Your task to perform on an android device: change the clock style Image 0: 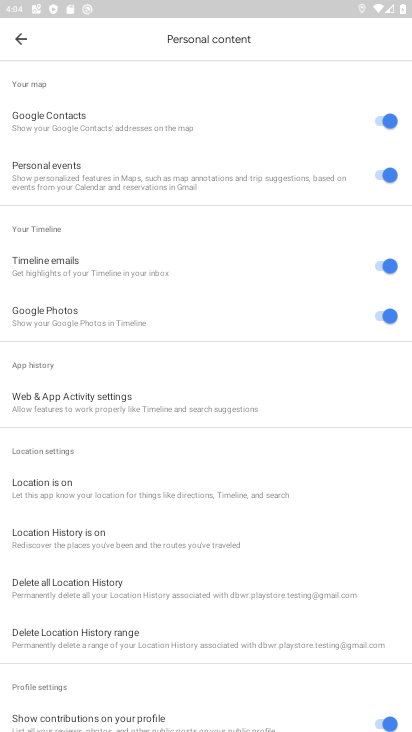
Step 0: press home button
Your task to perform on an android device: change the clock style Image 1: 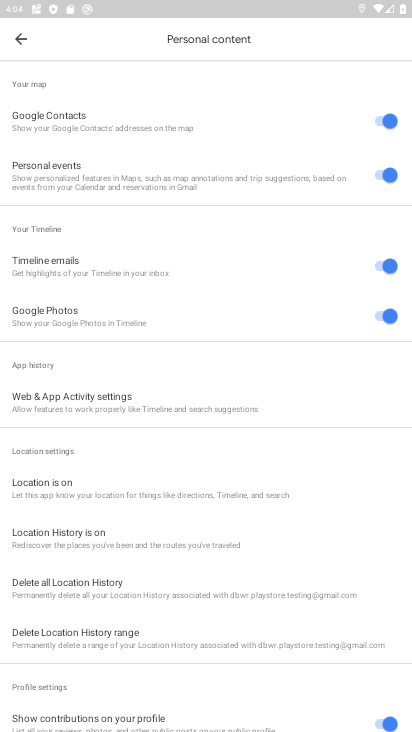
Step 1: press home button
Your task to perform on an android device: change the clock style Image 2: 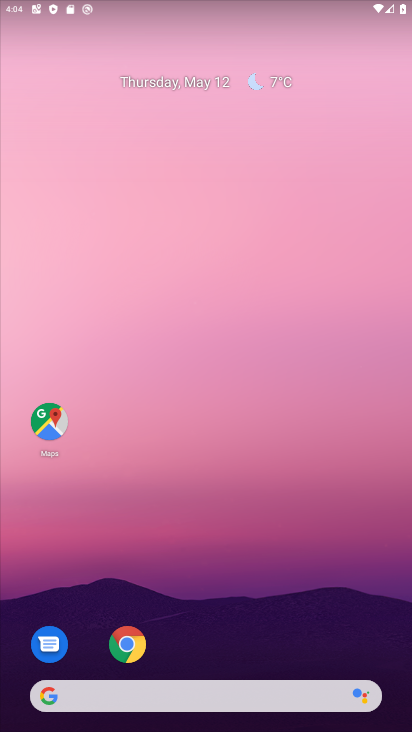
Step 2: drag from (209, 606) to (239, 25)
Your task to perform on an android device: change the clock style Image 3: 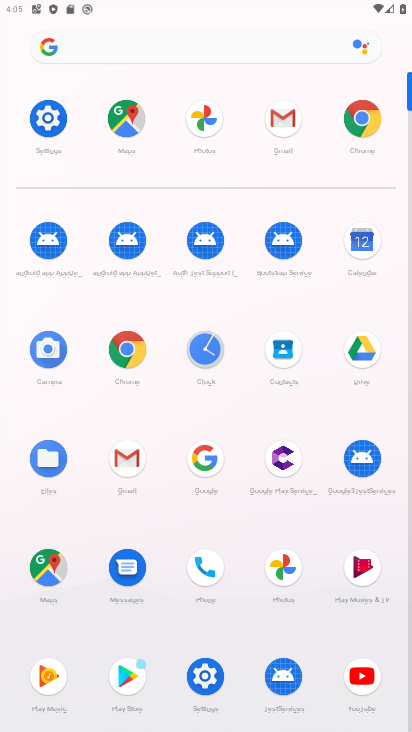
Step 3: click (206, 343)
Your task to perform on an android device: change the clock style Image 4: 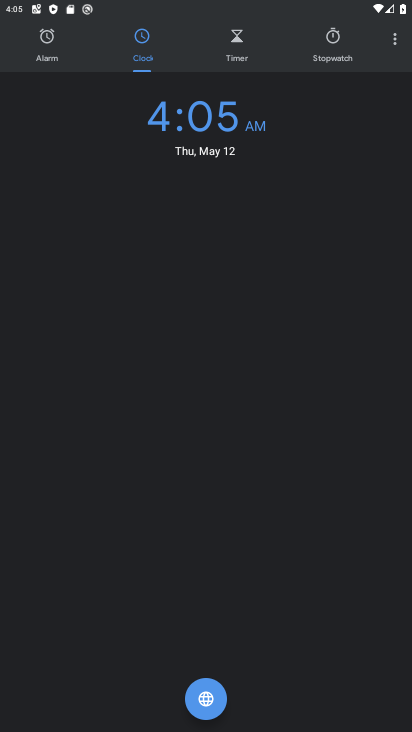
Step 4: click (394, 38)
Your task to perform on an android device: change the clock style Image 5: 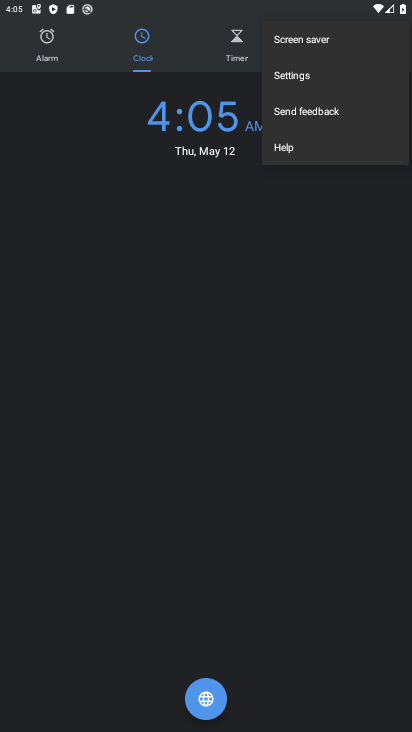
Step 5: click (313, 76)
Your task to perform on an android device: change the clock style Image 6: 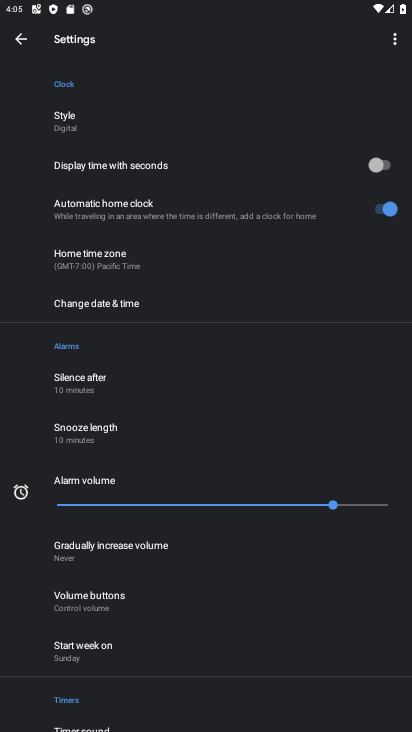
Step 6: click (93, 116)
Your task to perform on an android device: change the clock style Image 7: 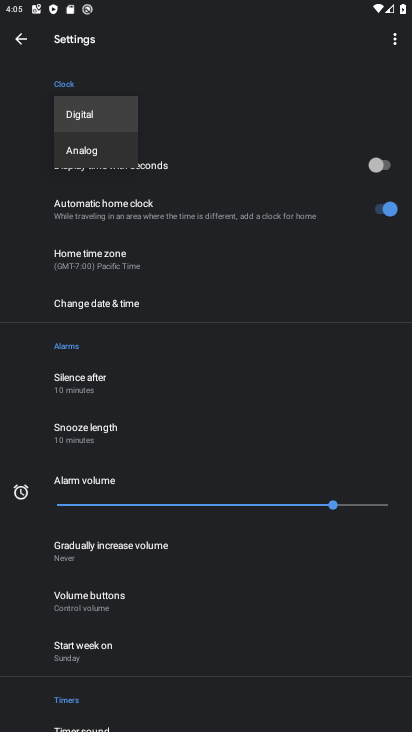
Step 7: click (113, 150)
Your task to perform on an android device: change the clock style Image 8: 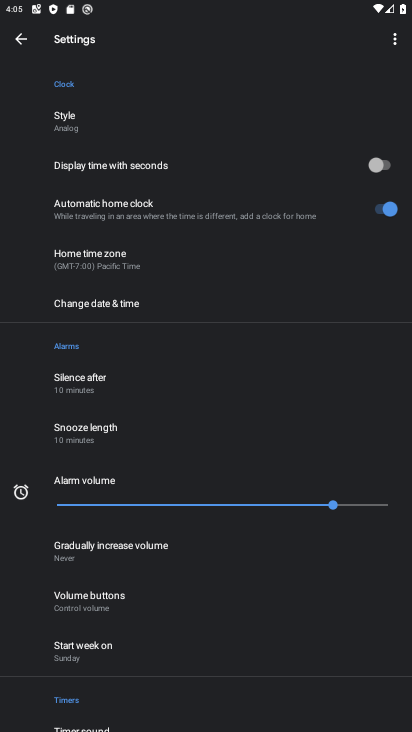
Step 8: task complete